Your task to perform on an android device: What's the weather today? Image 0: 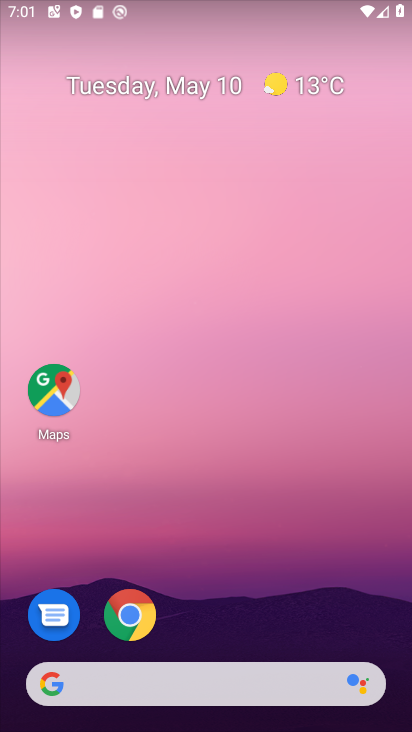
Step 0: drag from (334, 539) to (346, 158)
Your task to perform on an android device: What's the weather today? Image 1: 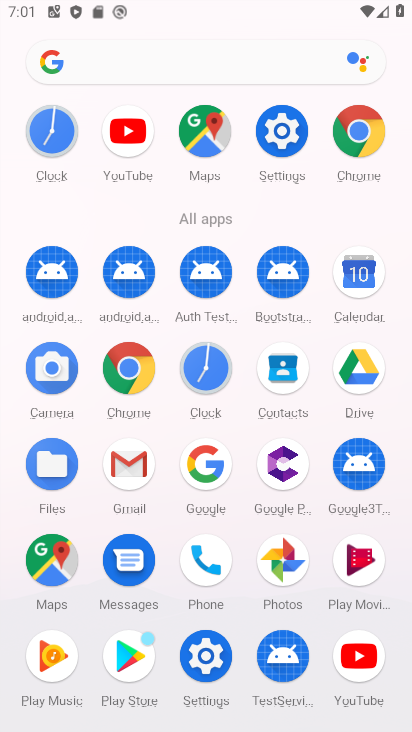
Step 1: press home button
Your task to perform on an android device: What's the weather today? Image 2: 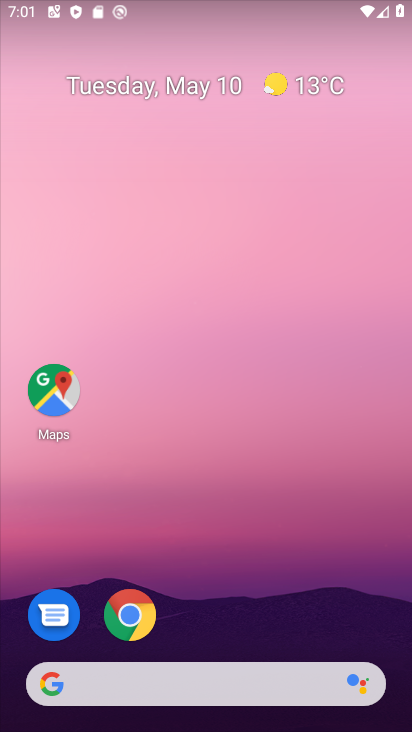
Step 2: click (292, 89)
Your task to perform on an android device: What's the weather today? Image 3: 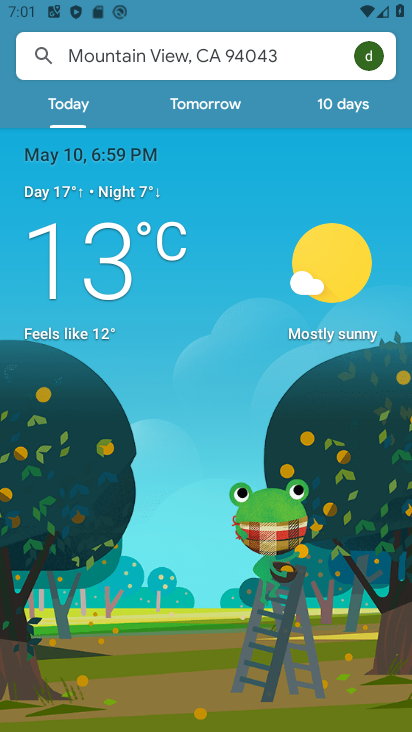
Step 3: task complete